Your task to perform on an android device: turn on location history Image 0: 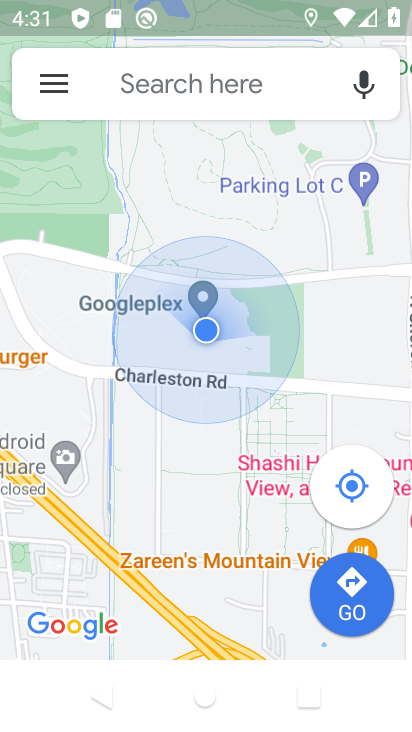
Step 0: press home button
Your task to perform on an android device: turn on location history Image 1: 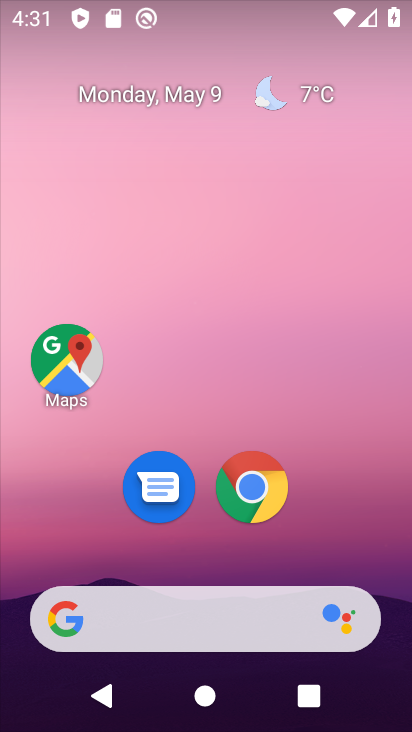
Step 1: drag from (200, 554) to (316, 209)
Your task to perform on an android device: turn on location history Image 2: 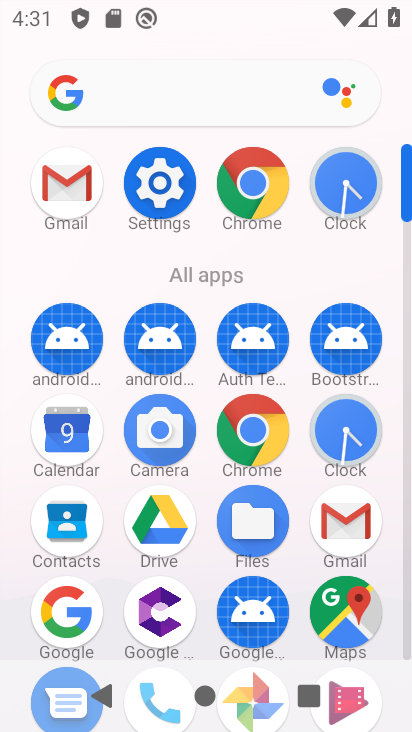
Step 2: click (172, 187)
Your task to perform on an android device: turn on location history Image 3: 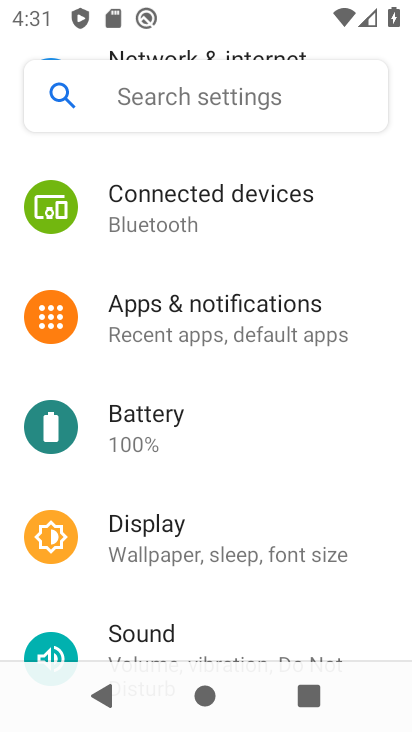
Step 3: drag from (189, 492) to (276, 166)
Your task to perform on an android device: turn on location history Image 4: 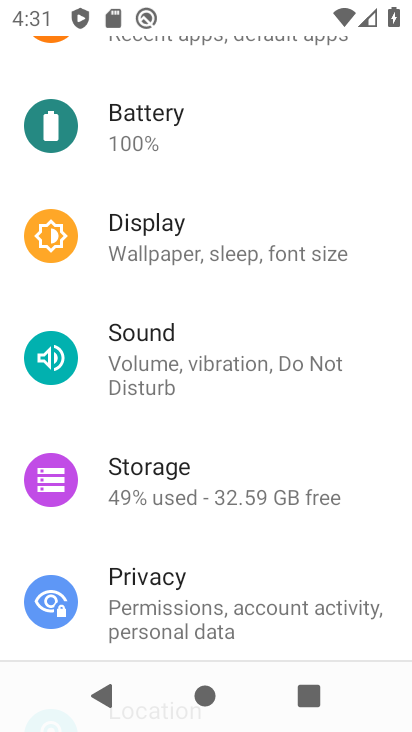
Step 4: drag from (202, 548) to (268, 201)
Your task to perform on an android device: turn on location history Image 5: 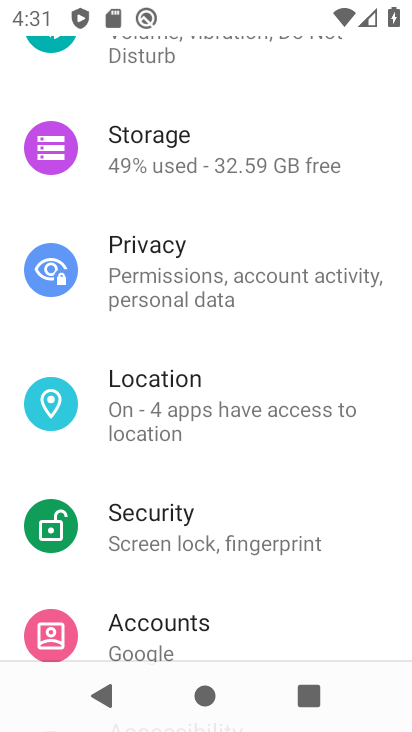
Step 5: click (243, 402)
Your task to perform on an android device: turn on location history Image 6: 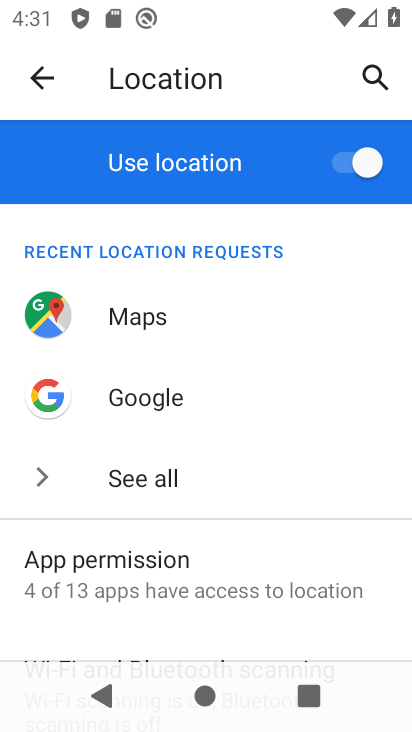
Step 6: drag from (226, 476) to (309, 154)
Your task to perform on an android device: turn on location history Image 7: 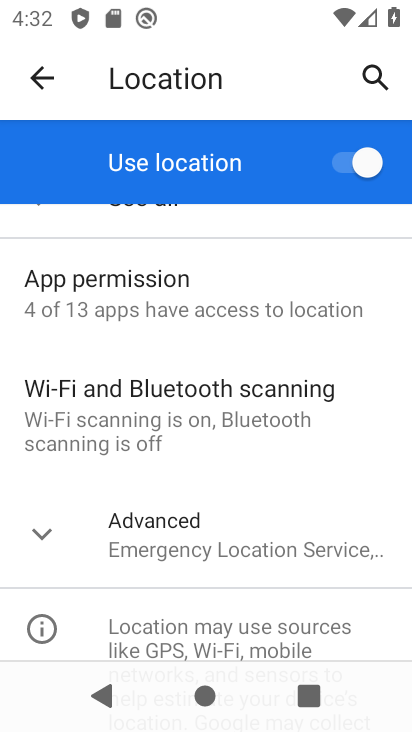
Step 7: drag from (231, 661) to (248, 533)
Your task to perform on an android device: turn on location history Image 8: 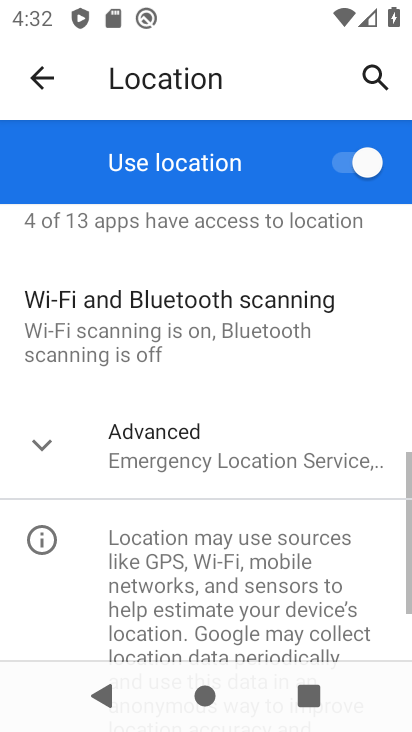
Step 8: click (248, 533)
Your task to perform on an android device: turn on location history Image 9: 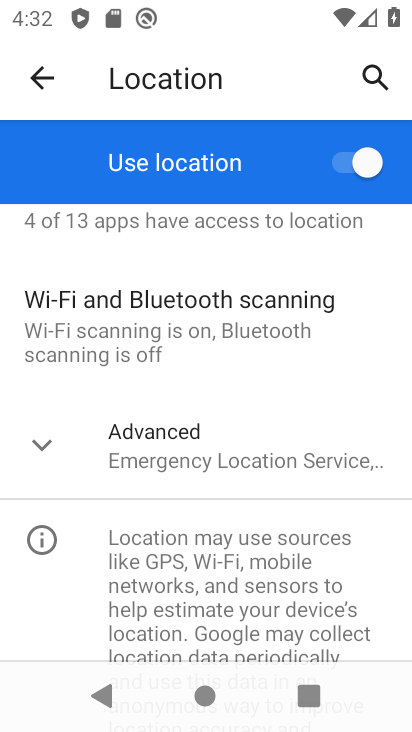
Step 9: click (66, 451)
Your task to perform on an android device: turn on location history Image 10: 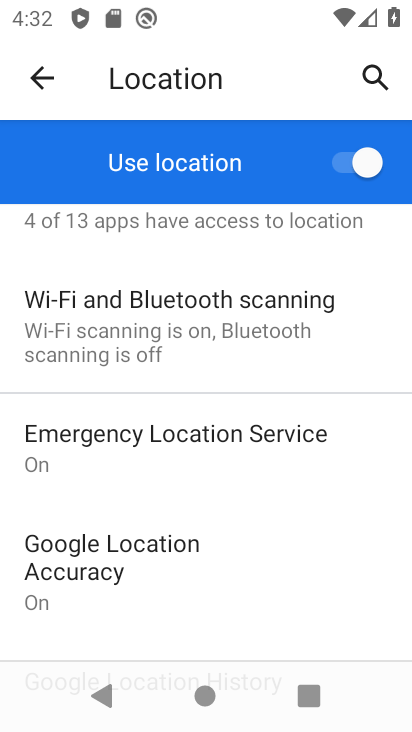
Step 10: drag from (139, 546) to (197, 254)
Your task to perform on an android device: turn on location history Image 11: 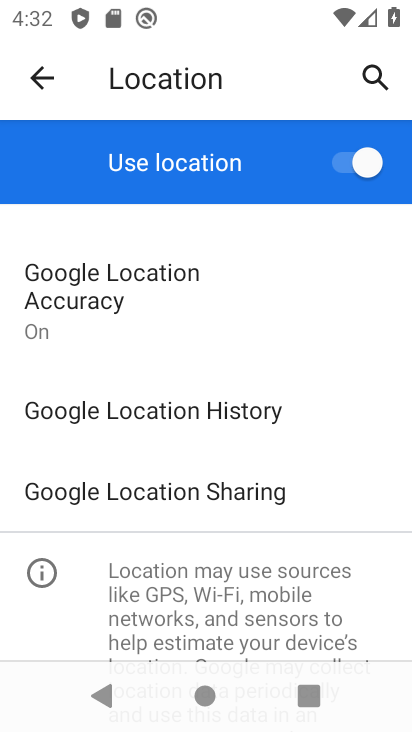
Step 11: drag from (161, 505) to (264, 219)
Your task to perform on an android device: turn on location history Image 12: 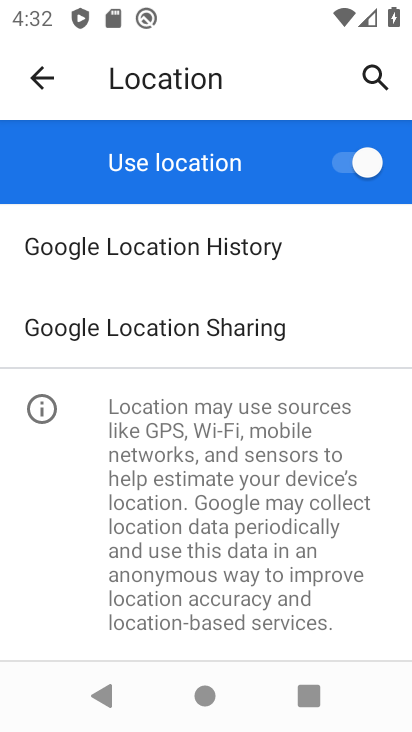
Step 12: click (260, 241)
Your task to perform on an android device: turn on location history Image 13: 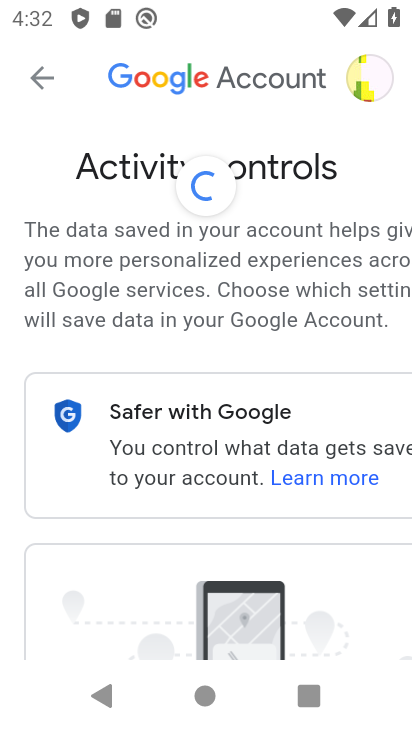
Step 13: drag from (295, 637) to (311, 281)
Your task to perform on an android device: turn on location history Image 14: 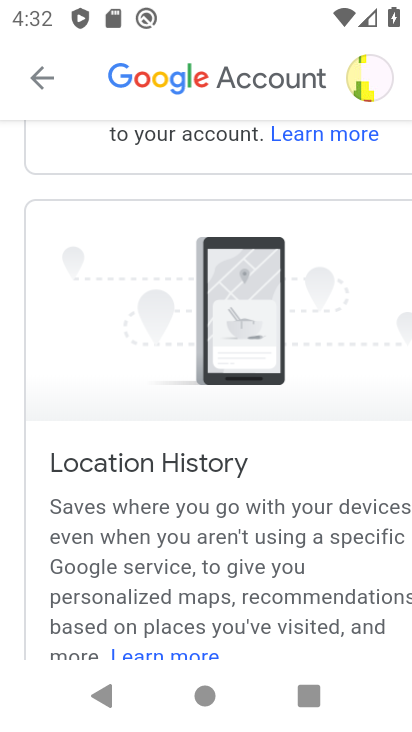
Step 14: drag from (290, 629) to (326, 272)
Your task to perform on an android device: turn on location history Image 15: 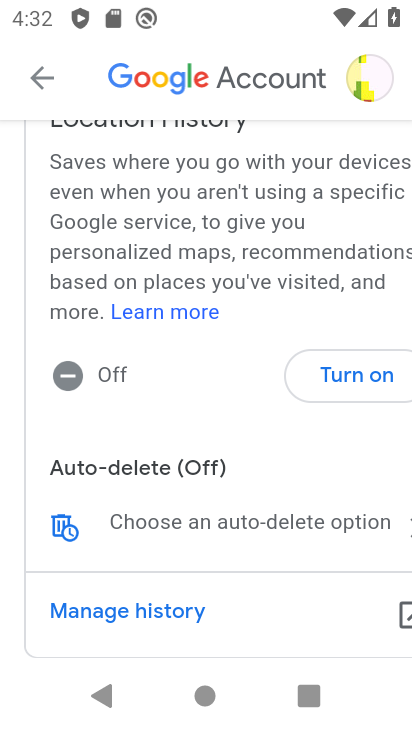
Step 15: click (370, 374)
Your task to perform on an android device: turn on location history Image 16: 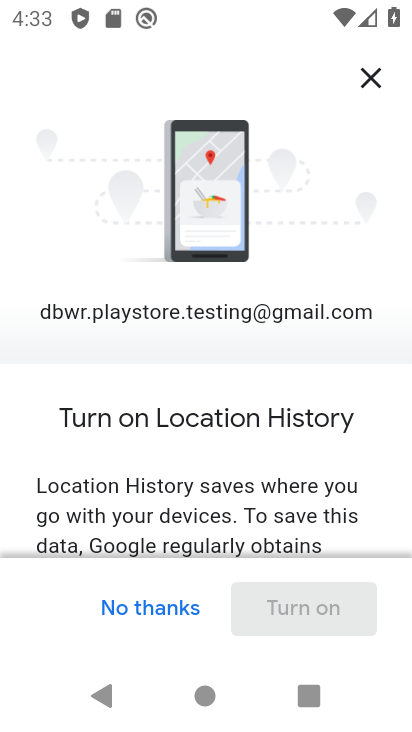
Step 16: task complete